Your task to perform on an android device: Open my contact list Image 0: 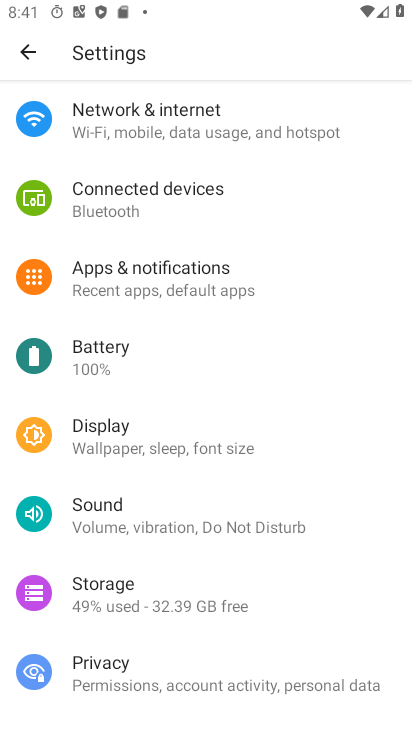
Step 0: press home button
Your task to perform on an android device: Open my contact list Image 1: 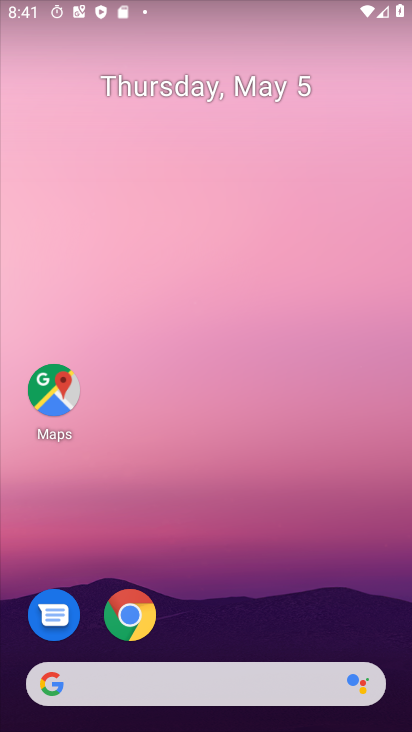
Step 1: drag from (237, 604) to (251, 134)
Your task to perform on an android device: Open my contact list Image 2: 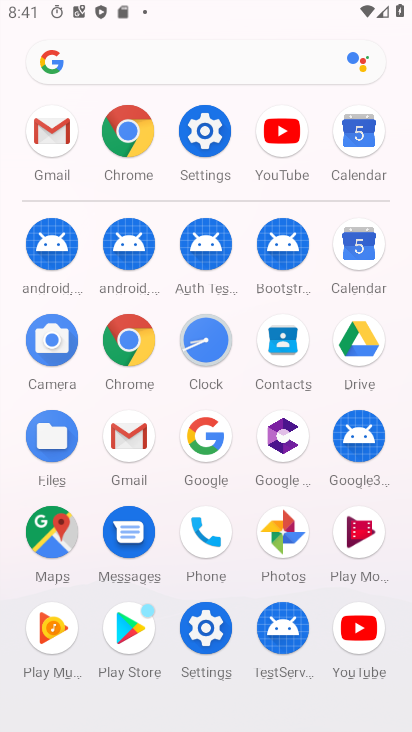
Step 2: click (282, 359)
Your task to perform on an android device: Open my contact list Image 3: 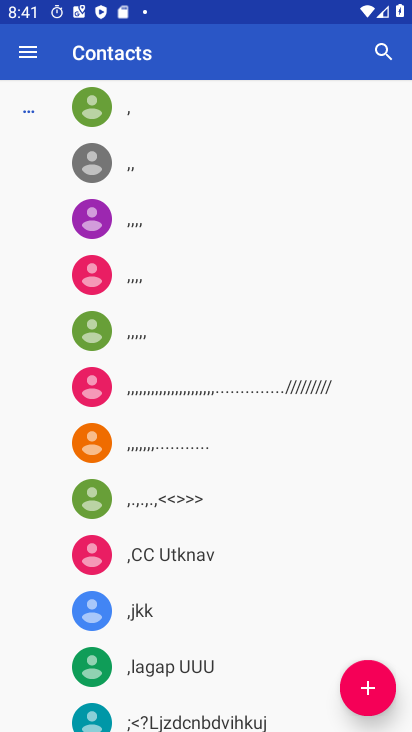
Step 3: task complete